Your task to perform on an android device: View the shopping cart on amazon.com. Image 0: 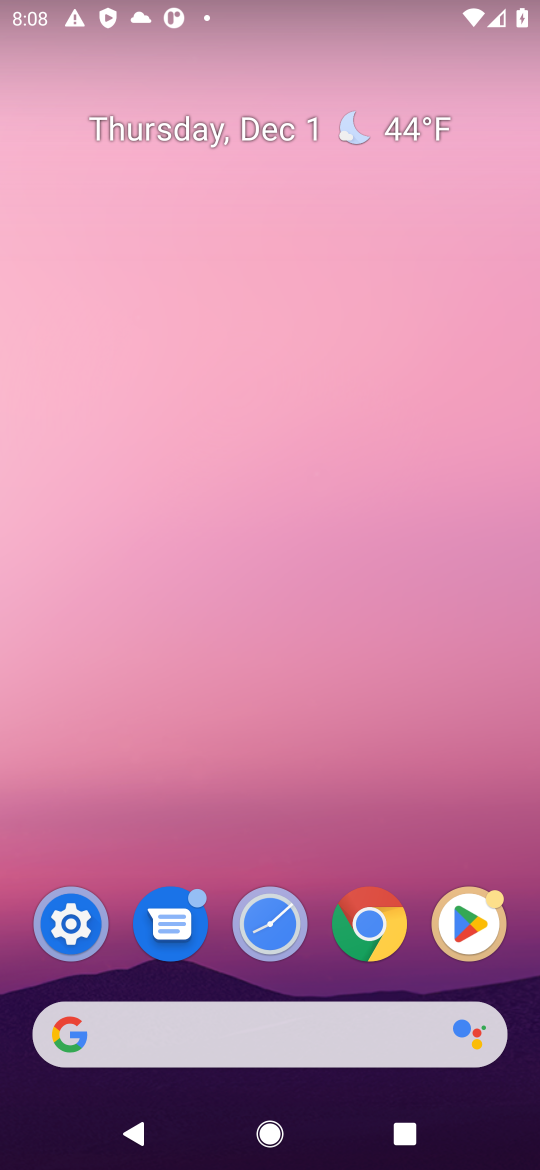
Step 0: click (307, 1058)
Your task to perform on an android device: View the shopping cart on amazon.com. Image 1: 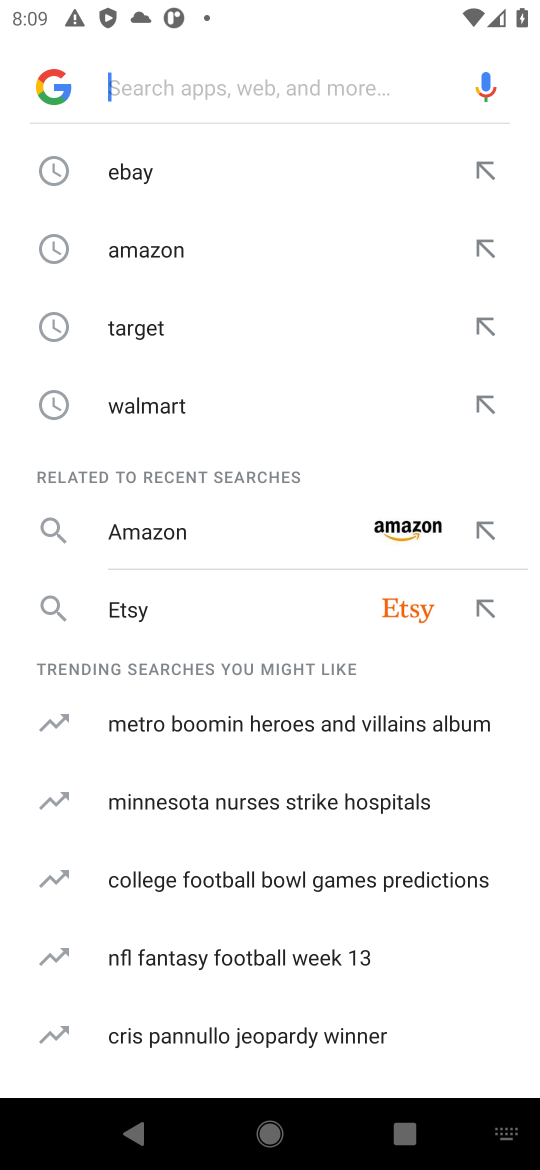
Step 1: click (242, 536)
Your task to perform on an android device: View the shopping cart on amazon.com. Image 2: 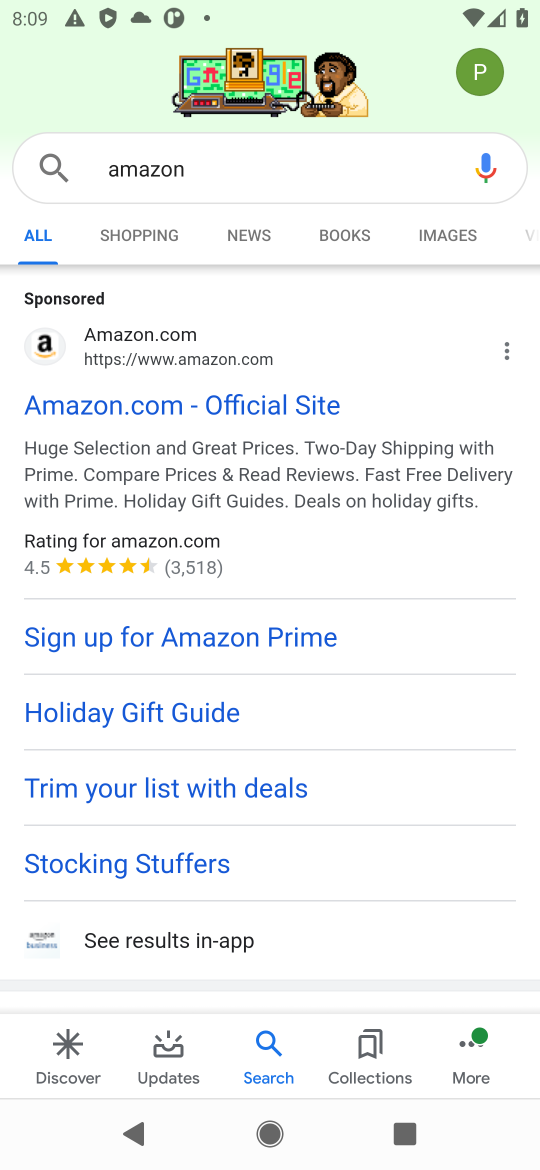
Step 2: click (117, 398)
Your task to perform on an android device: View the shopping cart on amazon.com. Image 3: 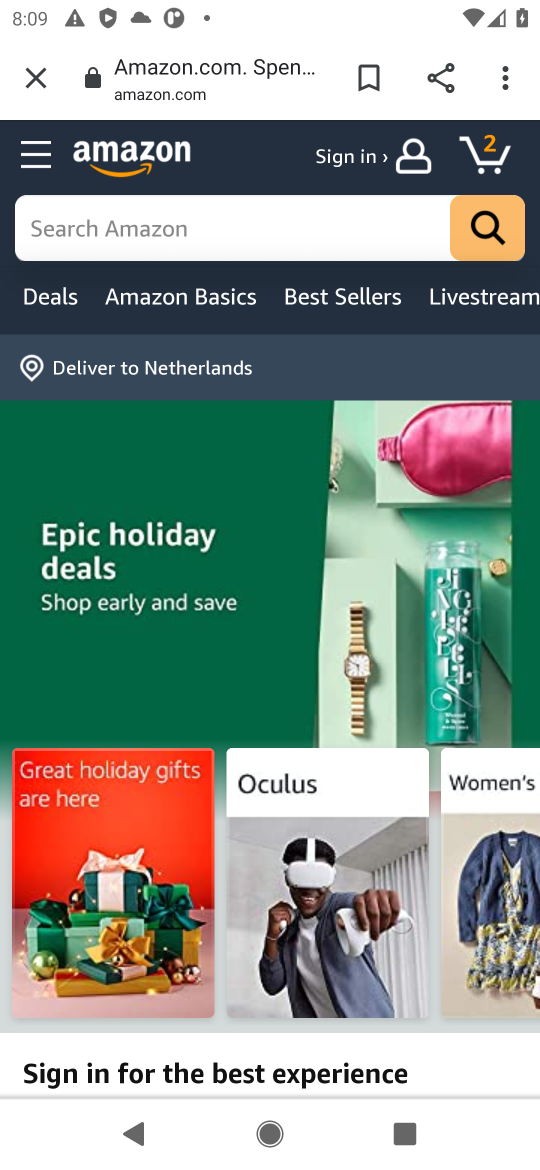
Step 3: click (270, 244)
Your task to perform on an android device: View the shopping cart on amazon.com. Image 4: 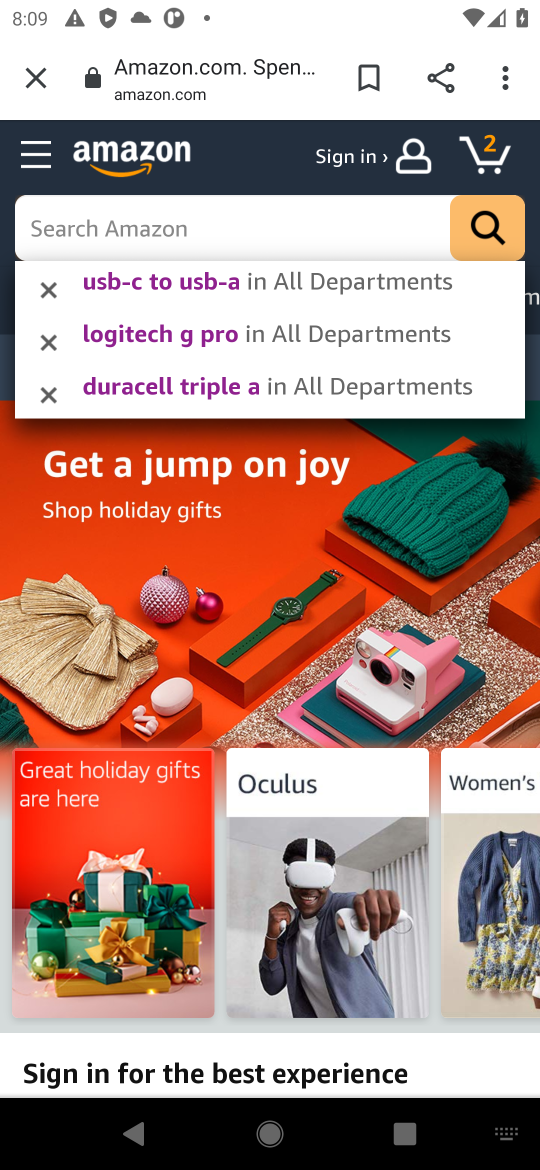
Step 4: click (480, 137)
Your task to perform on an android device: View the shopping cart on amazon.com. Image 5: 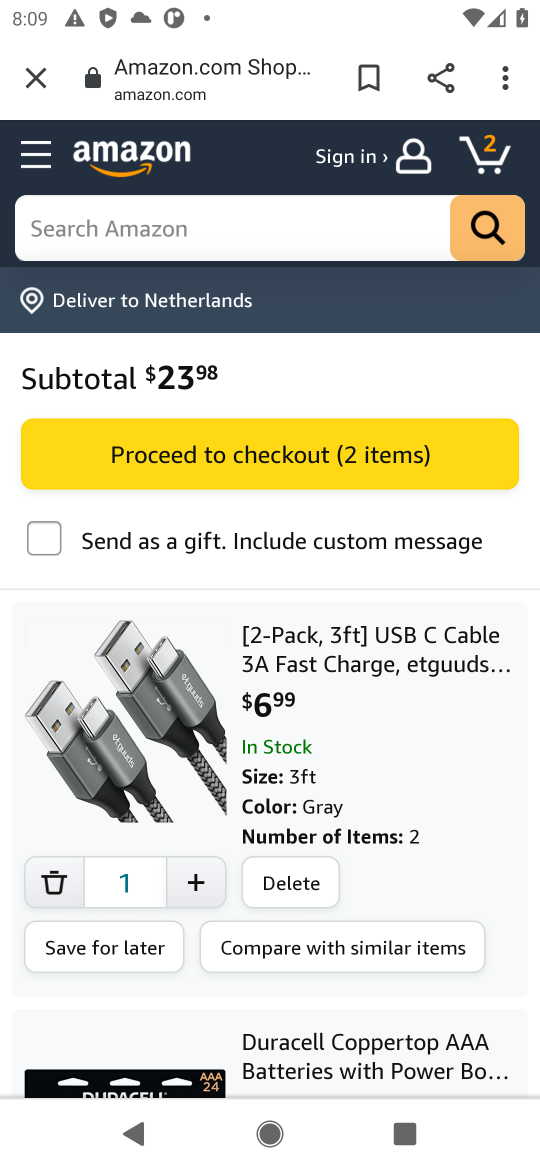
Step 5: click (279, 884)
Your task to perform on an android device: View the shopping cart on amazon.com. Image 6: 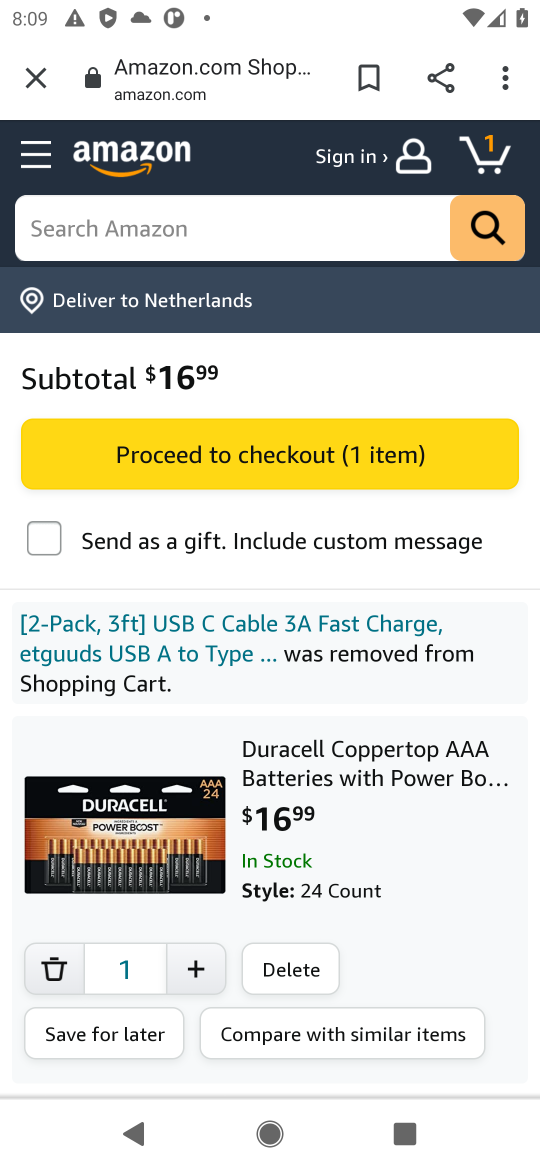
Step 6: click (310, 969)
Your task to perform on an android device: View the shopping cart on amazon.com. Image 7: 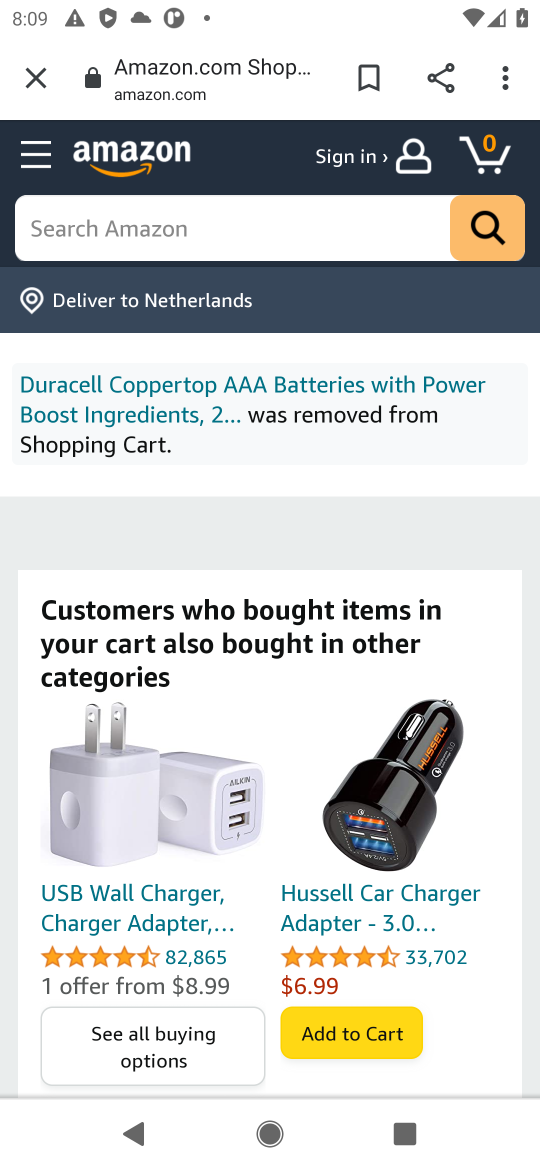
Step 7: task complete